Your task to perform on an android device: Show me the alarms in the clock app Image 0: 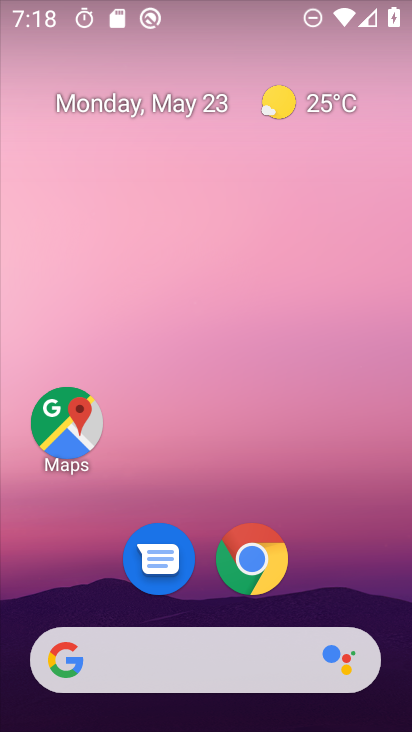
Step 0: drag from (389, 644) to (376, 158)
Your task to perform on an android device: Show me the alarms in the clock app Image 1: 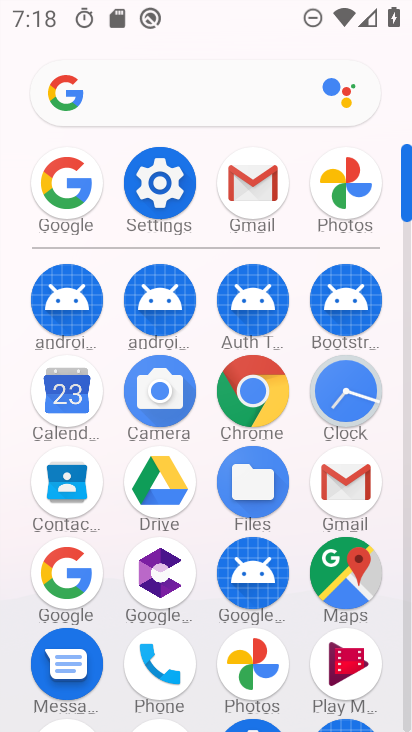
Step 1: click (347, 404)
Your task to perform on an android device: Show me the alarms in the clock app Image 2: 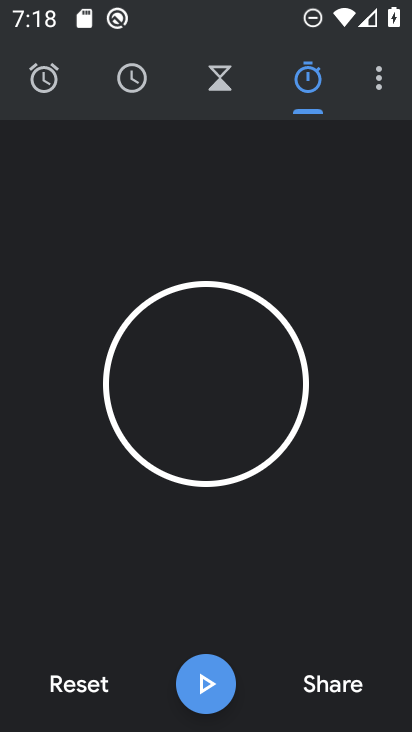
Step 2: click (61, 103)
Your task to perform on an android device: Show me the alarms in the clock app Image 3: 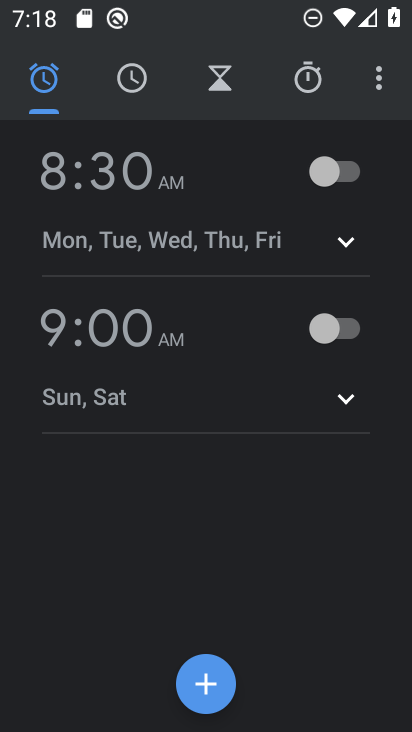
Step 3: task complete